Your task to perform on an android device: check google app version Image 0: 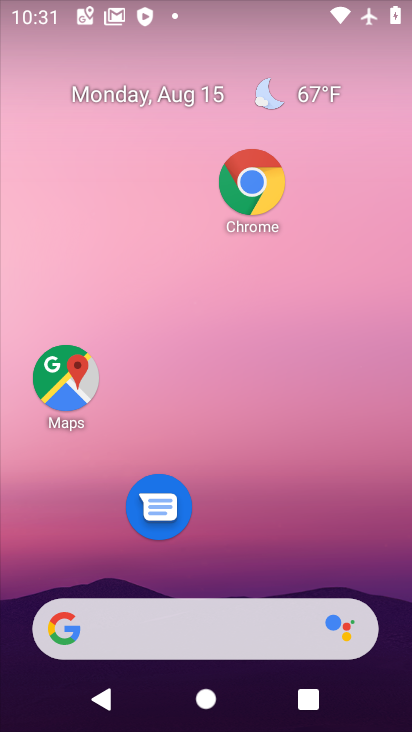
Step 0: click (271, 216)
Your task to perform on an android device: check google app version Image 1: 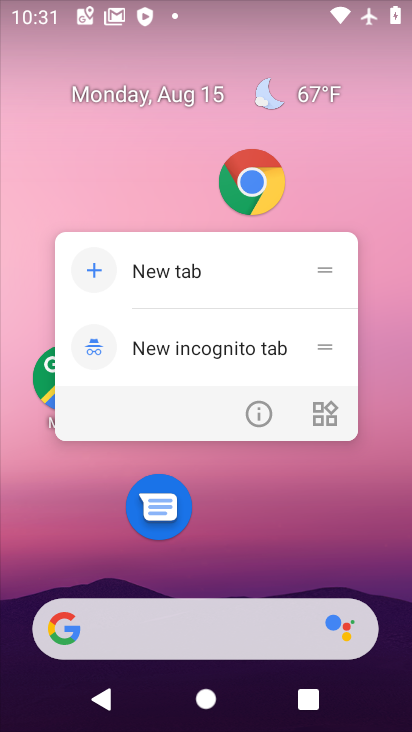
Step 1: click (243, 408)
Your task to perform on an android device: check google app version Image 2: 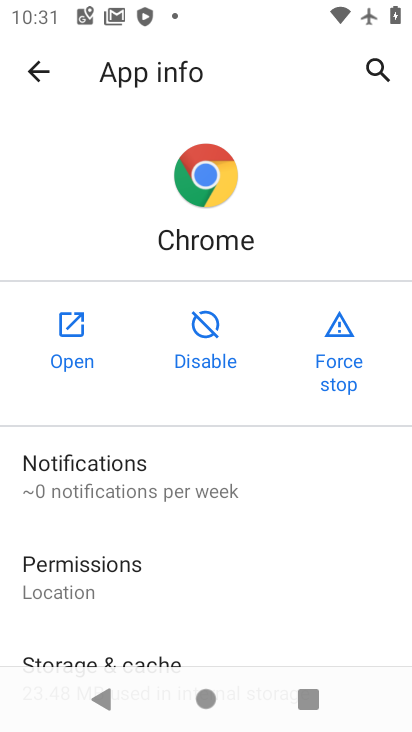
Step 2: task complete